Your task to perform on an android device: clear all cookies in the chrome app Image 0: 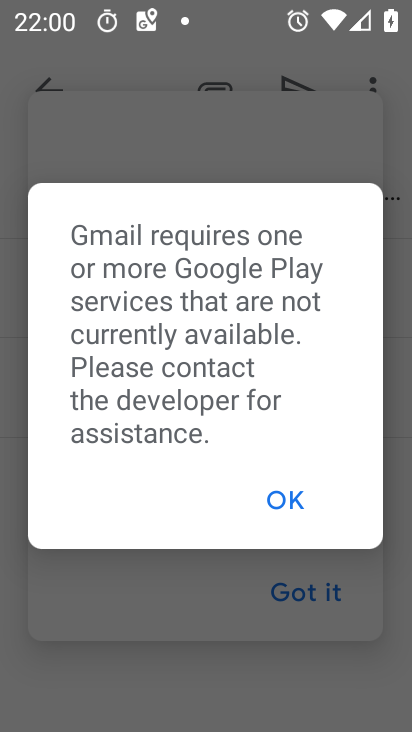
Step 0: press home button
Your task to perform on an android device: clear all cookies in the chrome app Image 1: 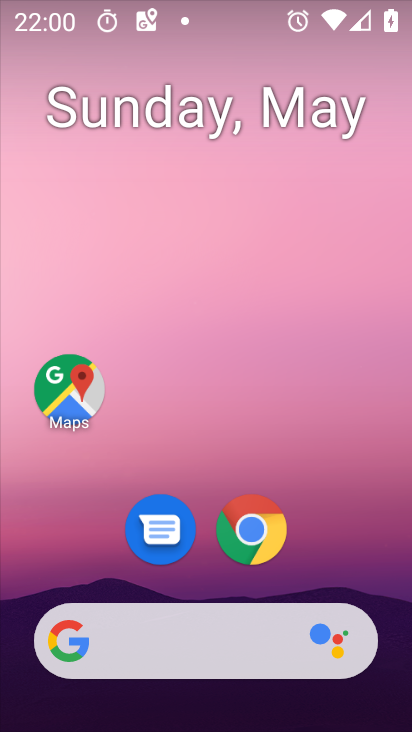
Step 1: click (255, 544)
Your task to perform on an android device: clear all cookies in the chrome app Image 2: 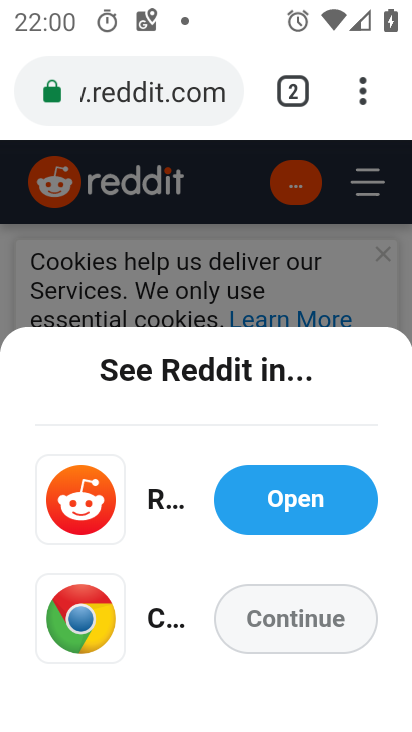
Step 2: click (361, 94)
Your task to perform on an android device: clear all cookies in the chrome app Image 3: 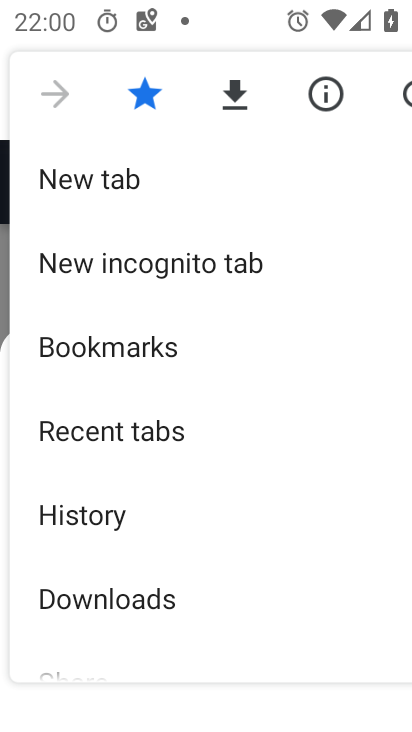
Step 3: drag from (214, 578) to (235, 63)
Your task to perform on an android device: clear all cookies in the chrome app Image 4: 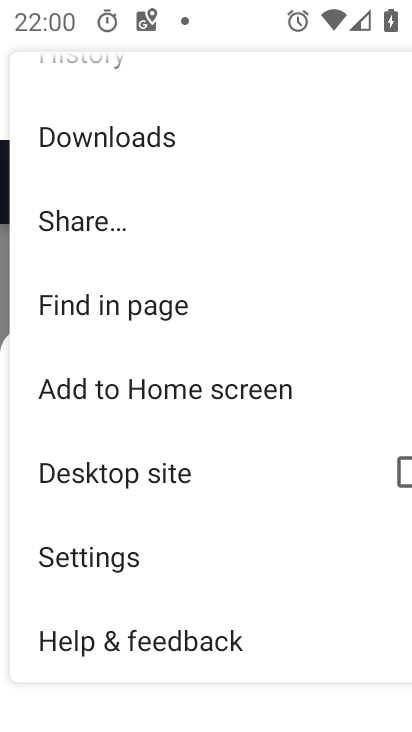
Step 4: click (98, 565)
Your task to perform on an android device: clear all cookies in the chrome app Image 5: 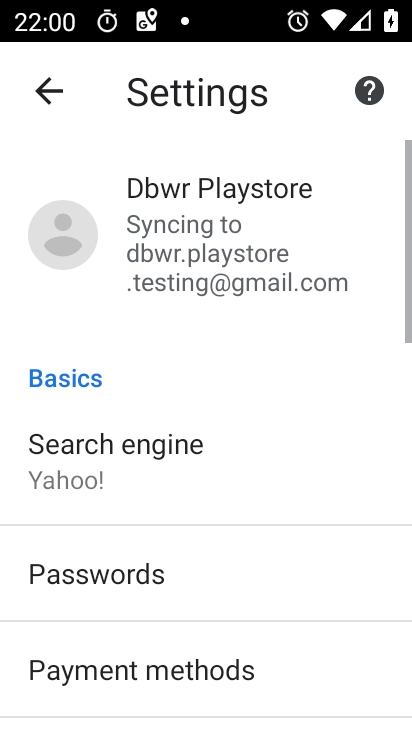
Step 5: drag from (183, 618) to (183, 146)
Your task to perform on an android device: clear all cookies in the chrome app Image 6: 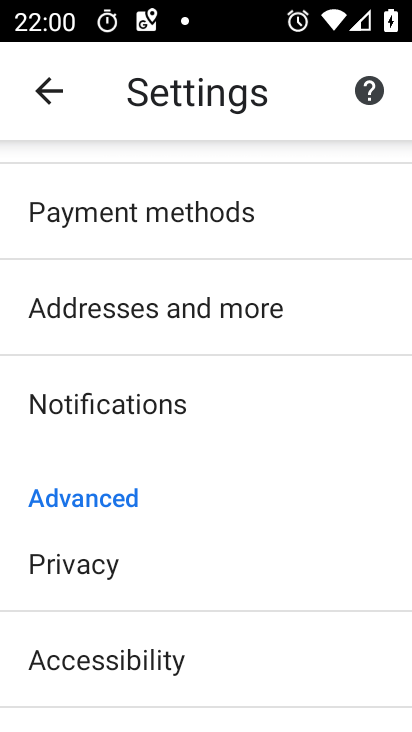
Step 6: click (69, 562)
Your task to perform on an android device: clear all cookies in the chrome app Image 7: 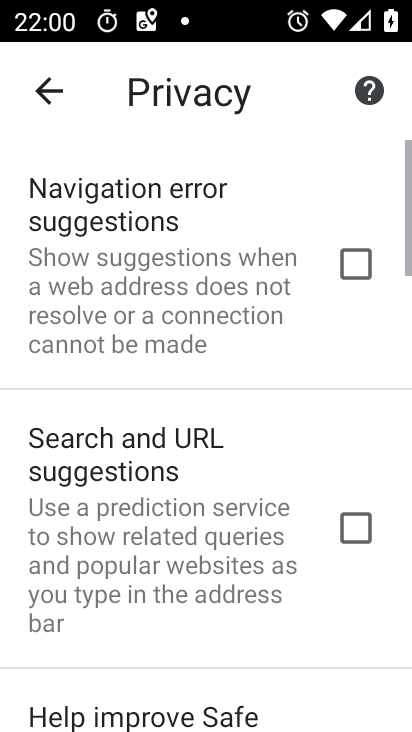
Step 7: drag from (181, 633) to (162, 126)
Your task to perform on an android device: clear all cookies in the chrome app Image 8: 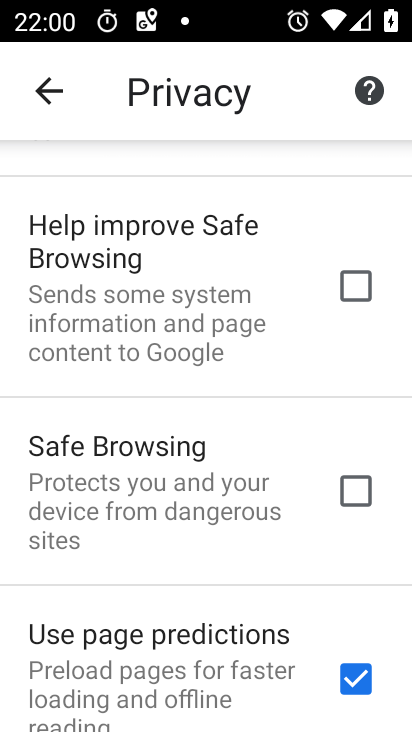
Step 8: drag from (137, 617) to (152, 196)
Your task to perform on an android device: clear all cookies in the chrome app Image 9: 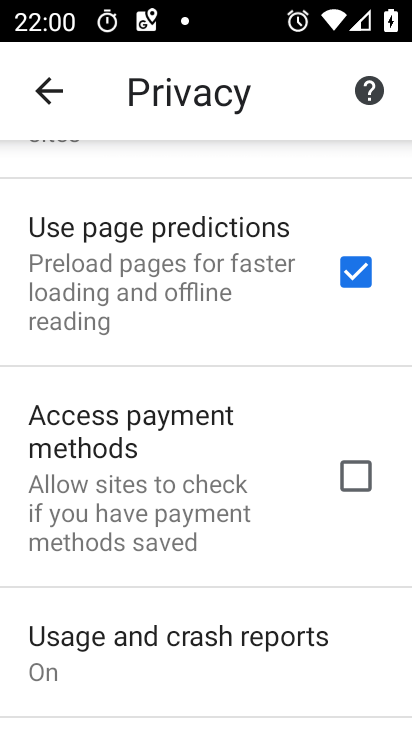
Step 9: drag from (138, 591) to (164, 121)
Your task to perform on an android device: clear all cookies in the chrome app Image 10: 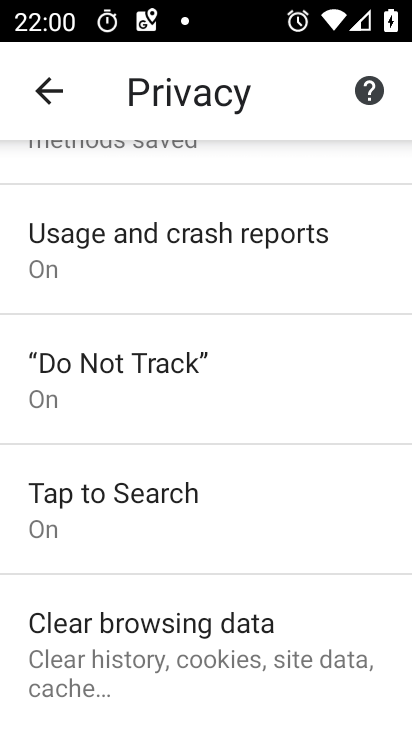
Step 10: drag from (164, 601) to (177, 279)
Your task to perform on an android device: clear all cookies in the chrome app Image 11: 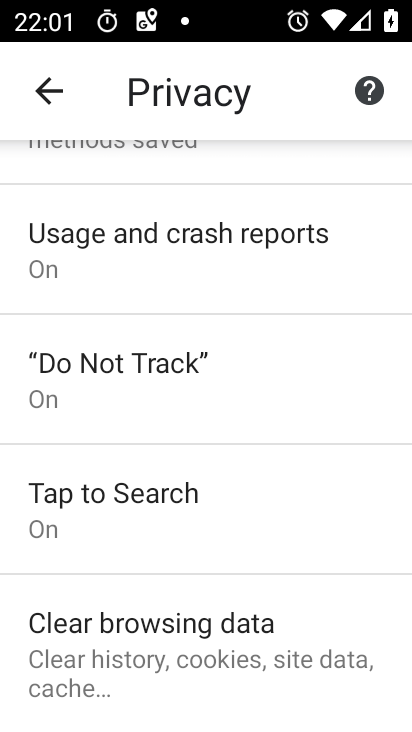
Step 11: click (113, 646)
Your task to perform on an android device: clear all cookies in the chrome app Image 12: 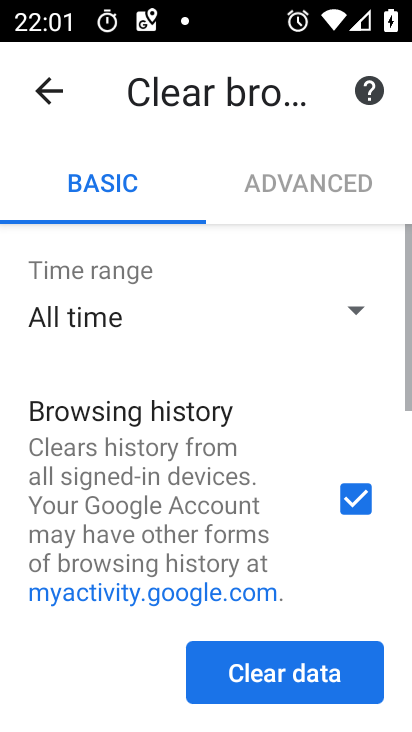
Step 12: drag from (145, 532) to (150, 333)
Your task to perform on an android device: clear all cookies in the chrome app Image 13: 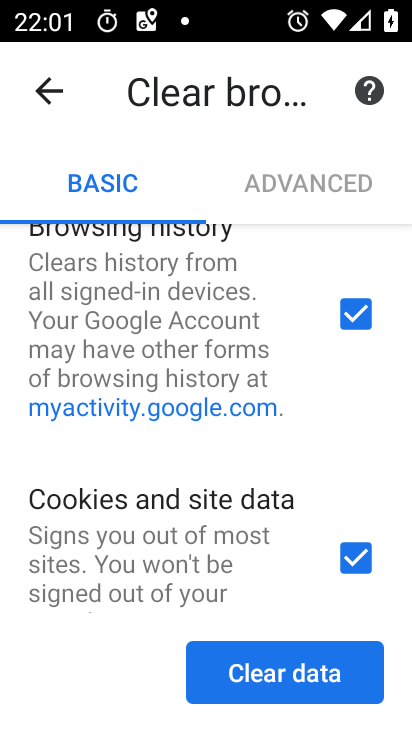
Step 13: click (360, 322)
Your task to perform on an android device: clear all cookies in the chrome app Image 14: 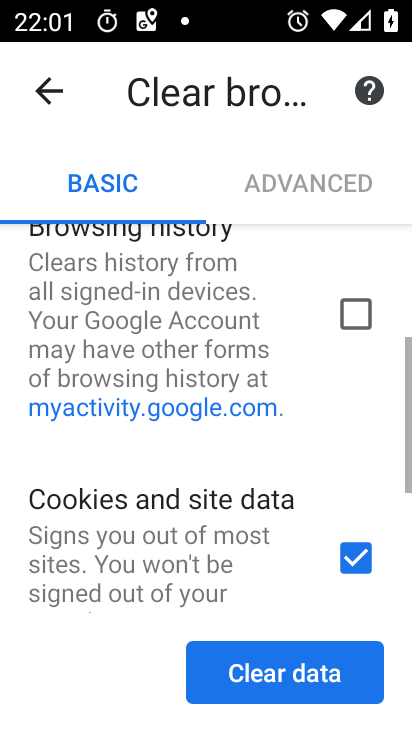
Step 14: drag from (155, 502) to (141, 330)
Your task to perform on an android device: clear all cookies in the chrome app Image 15: 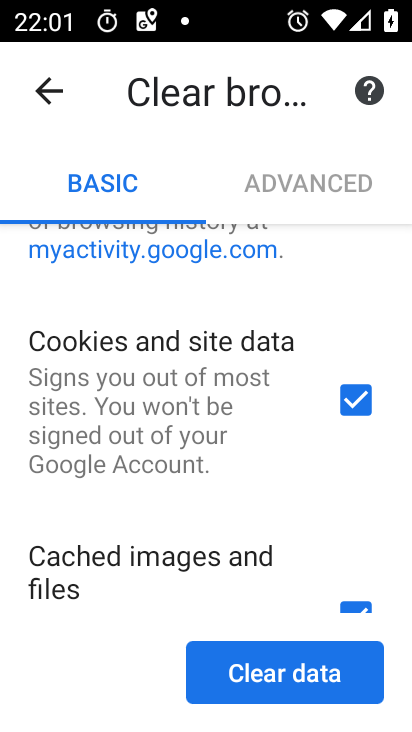
Step 15: drag from (126, 560) to (133, 356)
Your task to perform on an android device: clear all cookies in the chrome app Image 16: 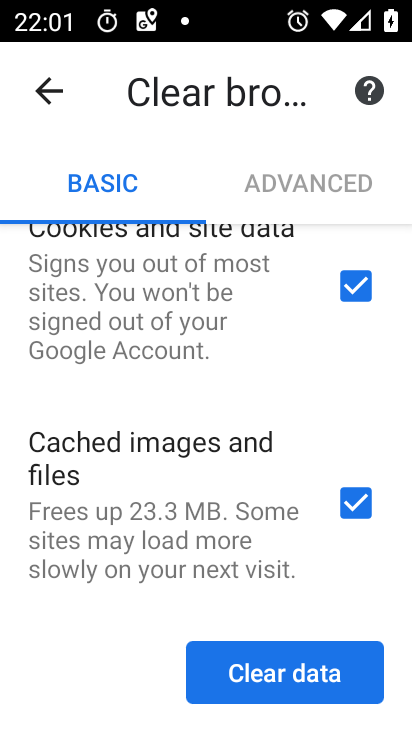
Step 16: click (346, 503)
Your task to perform on an android device: clear all cookies in the chrome app Image 17: 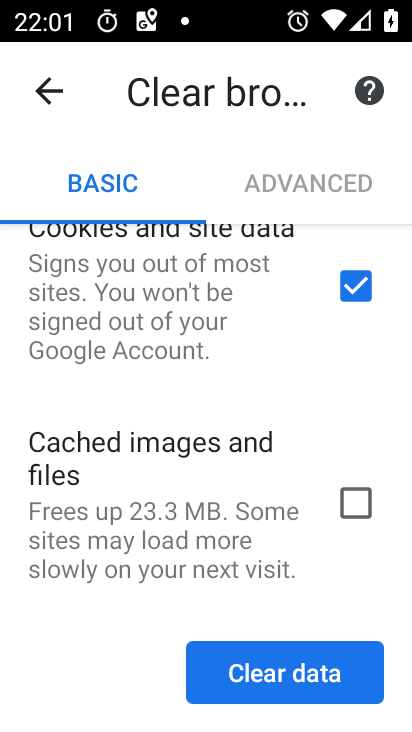
Step 17: click (275, 680)
Your task to perform on an android device: clear all cookies in the chrome app Image 18: 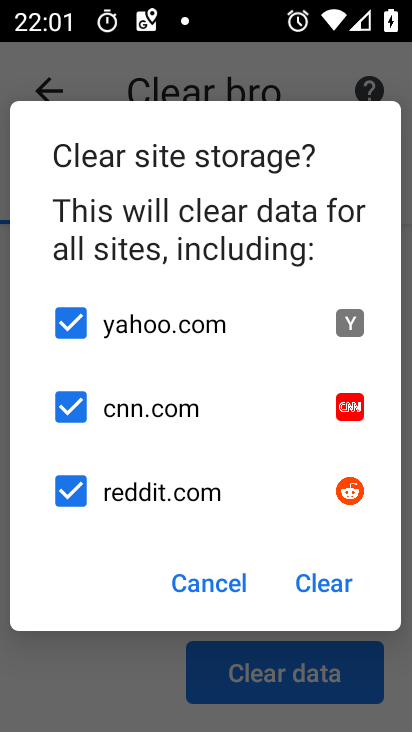
Step 18: click (324, 579)
Your task to perform on an android device: clear all cookies in the chrome app Image 19: 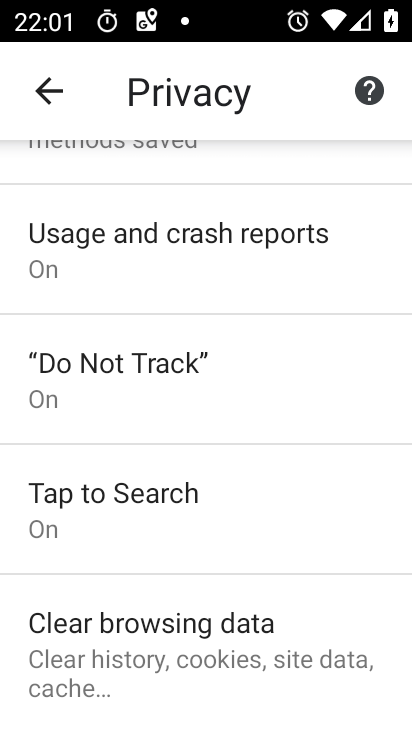
Step 19: task complete